Your task to perform on an android device: What's the weather? Image 0: 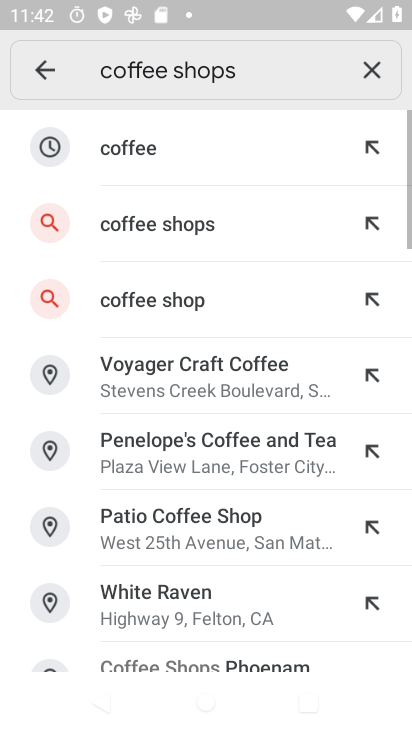
Step 0: press home button
Your task to perform on an android device: What's the weather? Image 1: 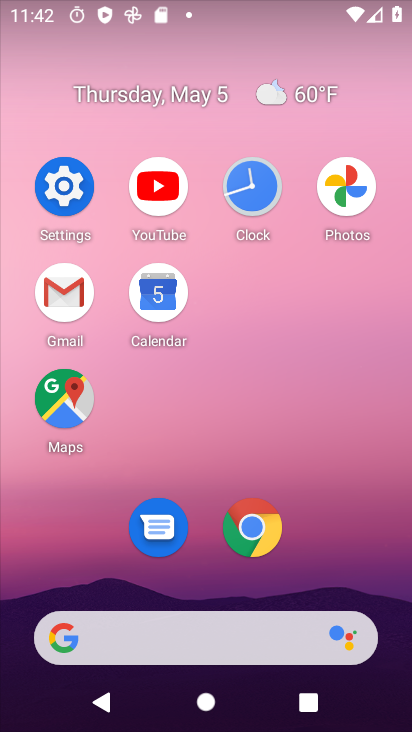
Step 1: drag from (314, 572) to (270, 147)
Your task to perform on an android device: What's the weather? Image 2: 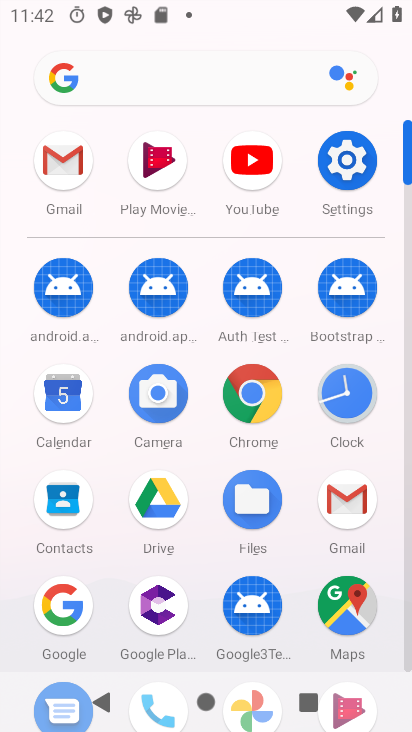
Step 2: drag from (71, 620) to (15, 511)
Your task to perform on an android device: What's the weather? Image 3: 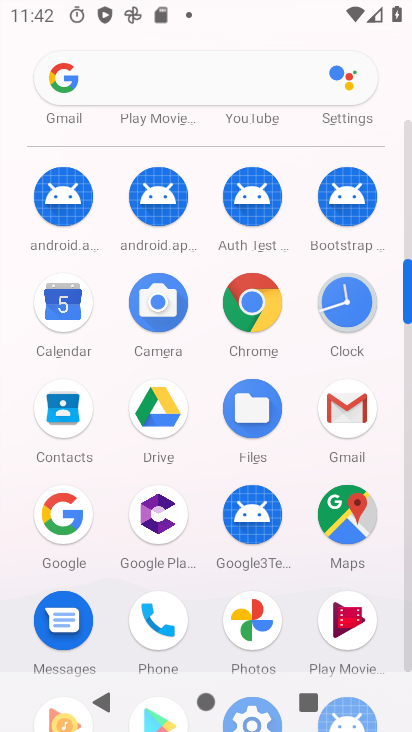
Step 3: drag from (52, 520) to (228, 301)
Your task to perform on an android device: What's the weather? Image 4: 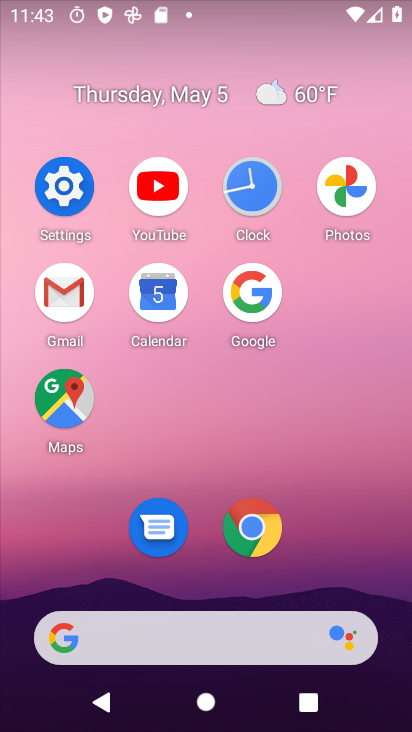
Step 4: click (244, 299)
Your task to perform on an android device: What's the weather? Image 5: 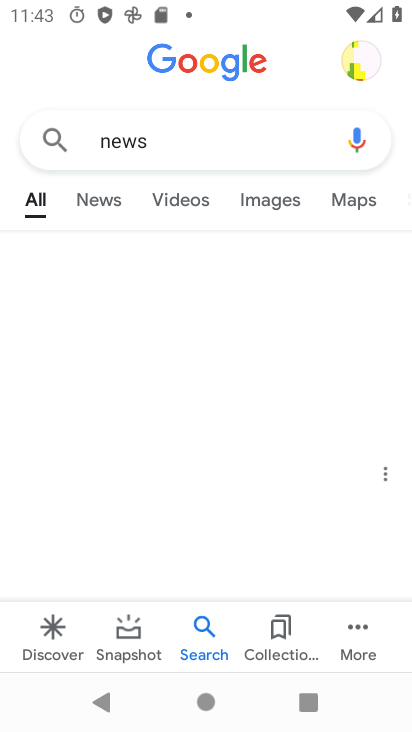
Step 5: click (149, 142)
Your task to perform on an android device: What's the weather? Image 6: 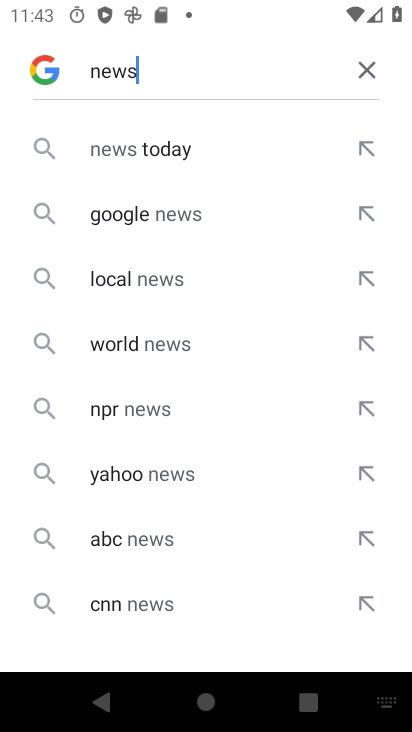
Step 6: click (359, 74)
Your task to perform on an android device: What's the weather? Image 7: 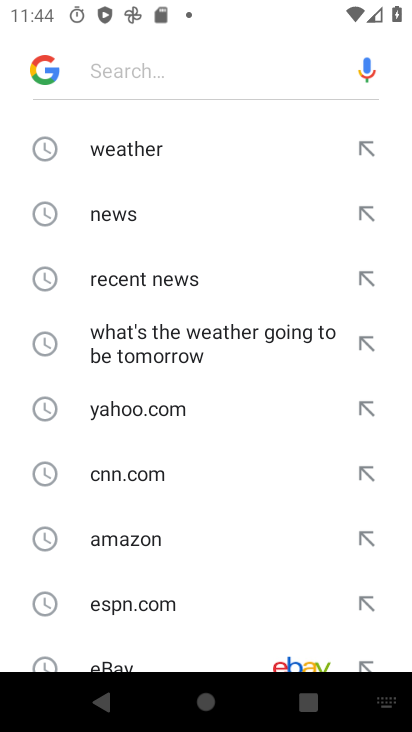
Step 7: click (155, 151)
Your task to perform on an android device: What's the weather? Image 8: 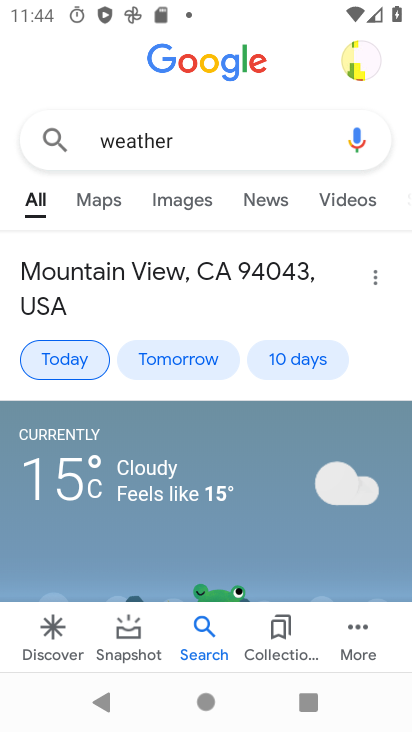
Step 8: task complete